Your task to perform on an android device: toggle wifi Image 0: 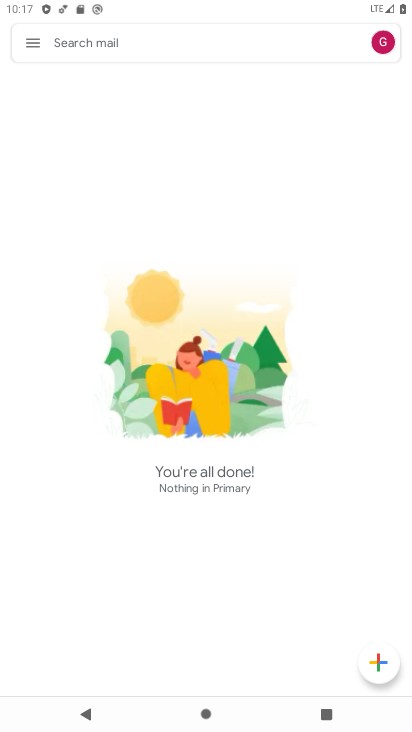
Step 0: press home button
Your task to perform on an android device: toggle wifi Image 1: 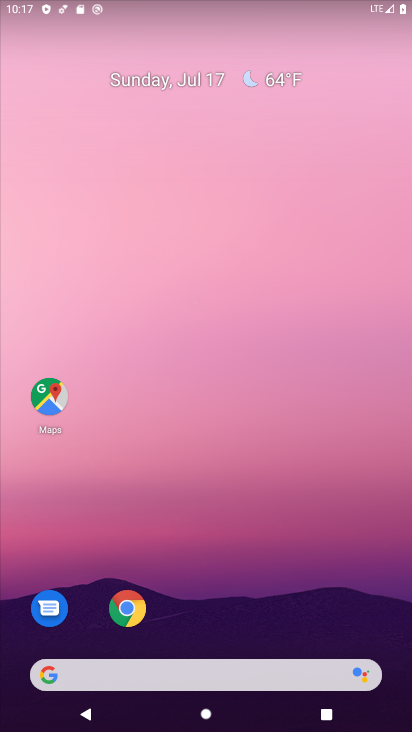
Step 1: drag from (207, 1) to (260, 559)
Your task to perform on an android device: toggle wifi Image 2: 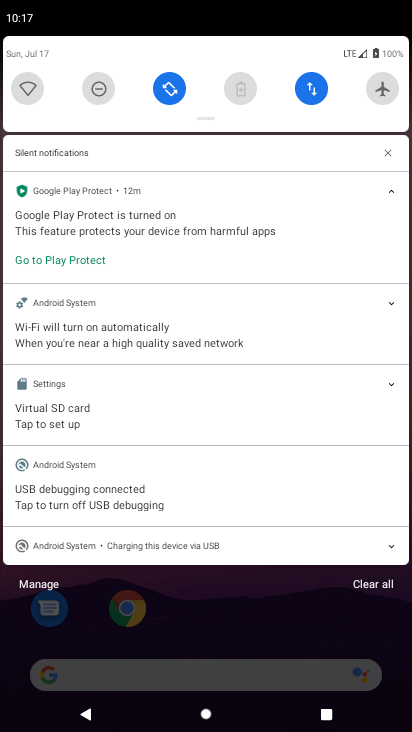
Step 2: click (28, 86)
Your task to perform on an android device: toggle wifi Image 3: 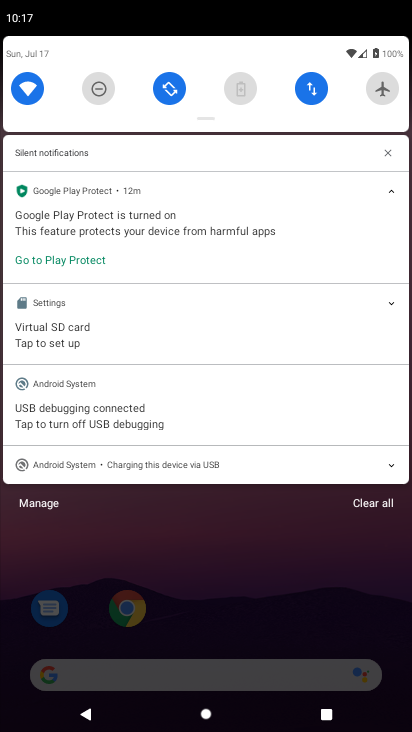
Step 3: task complete